Your task to perform on an android device: install app "Indeed Job Search" Image 0: 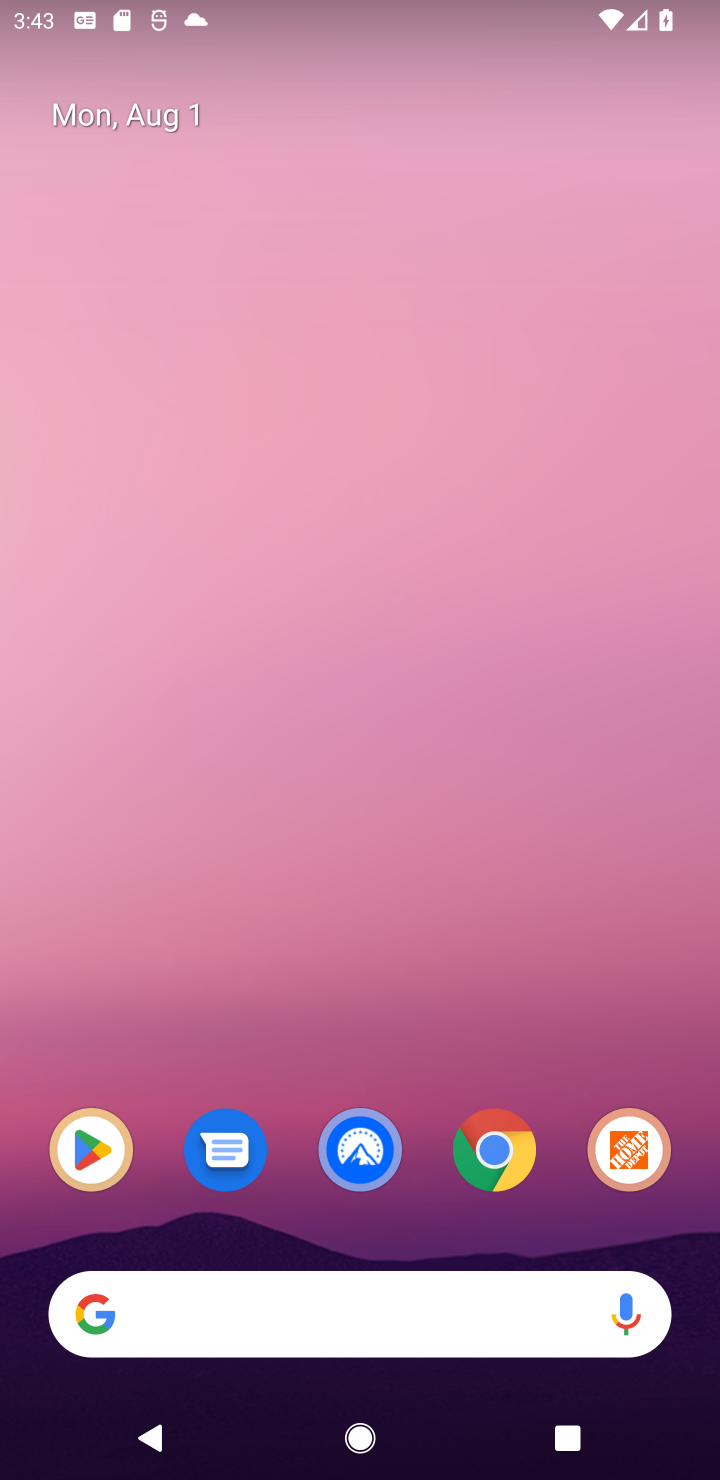
Step 0: drag from (289, 1236) to (445, 3)
Your task to perform on an android device: install app "Indeed Job Search" Image 1: 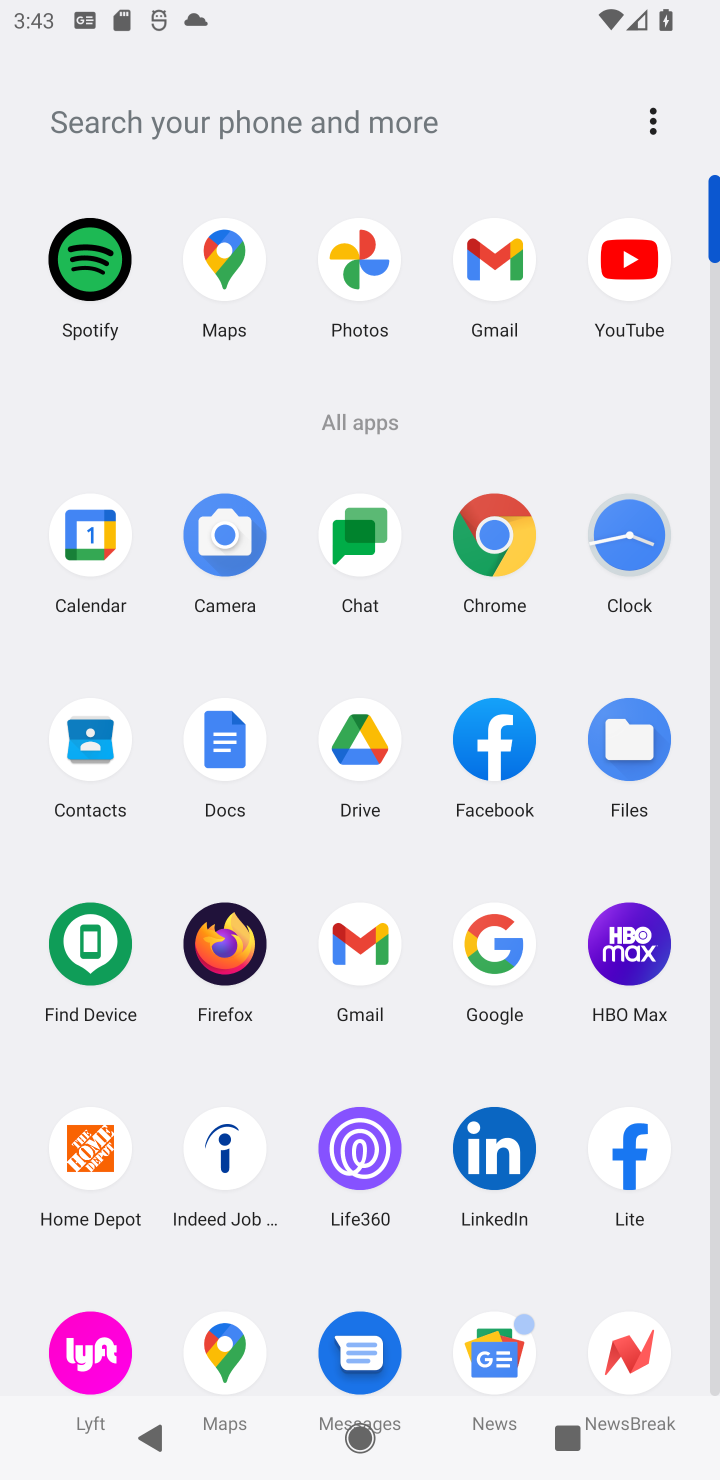
Step 1: click (248, 1220)
Your task to perform on an android device: install app "Indeed Job Search" Image 2: 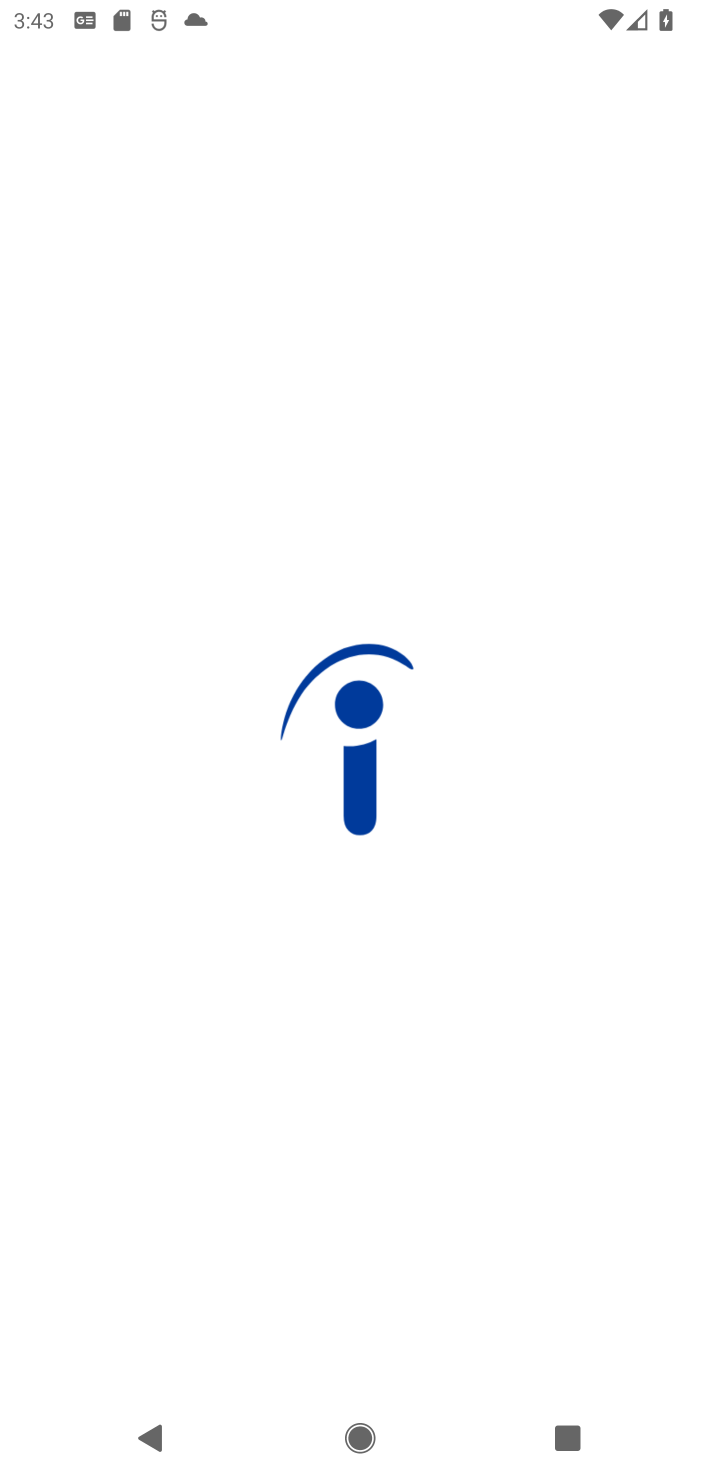
Step 2: task complete